Your task to perform on an android device: toggle priority inbox in the gmail app Image 0: 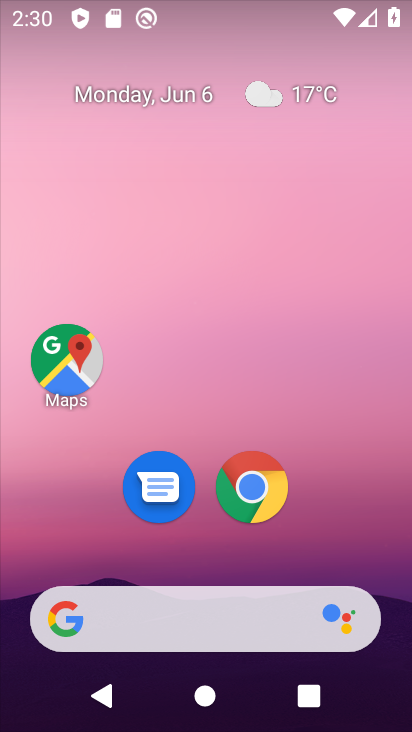
Step 0: drag from (125, 549) to (241, 66)
Your task to perform on an android device: toggle priority inbox in the gmail app Image 1: 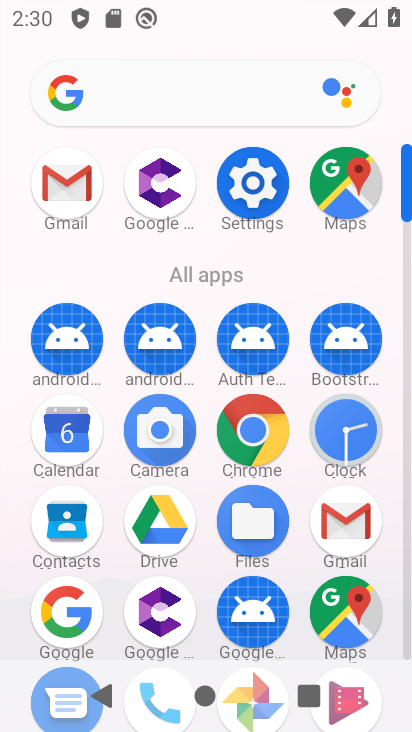
Step 1: click (341, 525)
Your task to perform on an android device: toggle priority inbox in the gmail app Image 2: 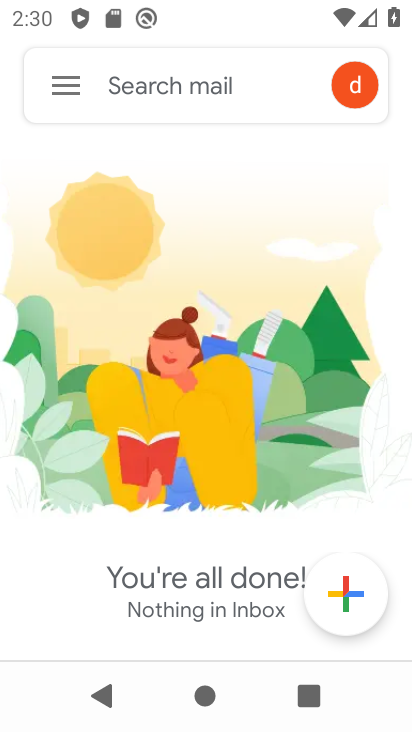
Step 2: click (70, 77)
Your task to perform on an android device: toggle priority inbox in the gmail app Image 3: 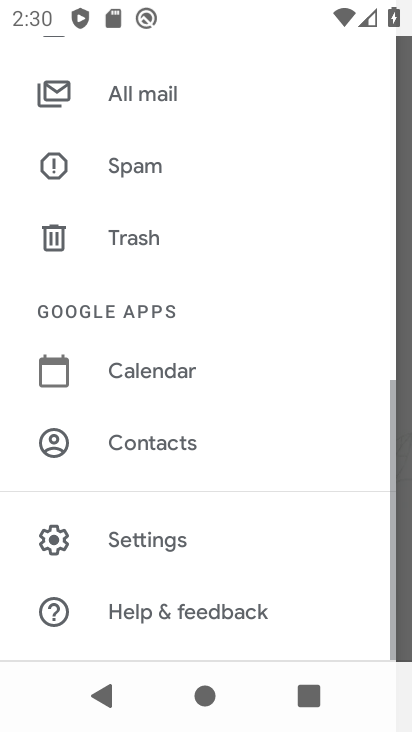
Step 3: click (102, 544)
Your task to perform on an android device: toggle priority inbox in the gmail app Image 4: 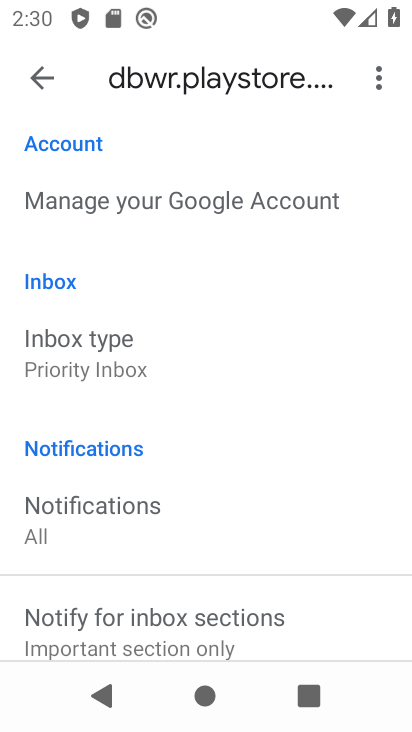
Step 4: click (151, 336)
Your task to perform on an android device: toggle priority inbox in the gmail app Image 5: 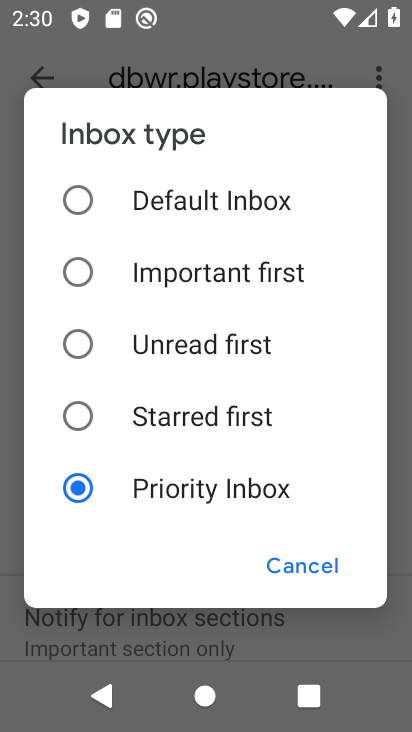
Step 5: click (173, 205)
Your task to perform on an android device: toggle priority inbox in the gmail app Image 6: 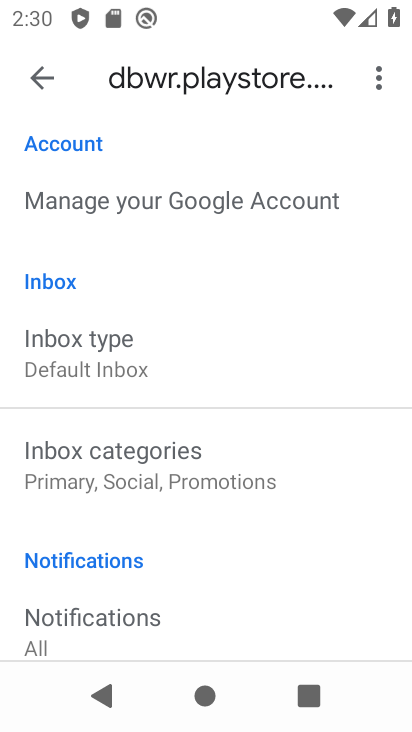
Step 6: task complete